Your task to perform on an android device: Open the stopwatch Image 0: 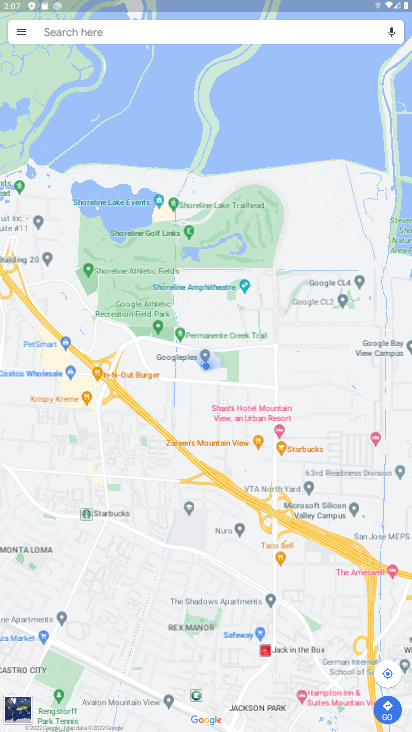
Step 0: press home button
Your task to perform on an android device: Open the stopwatch Image 1: 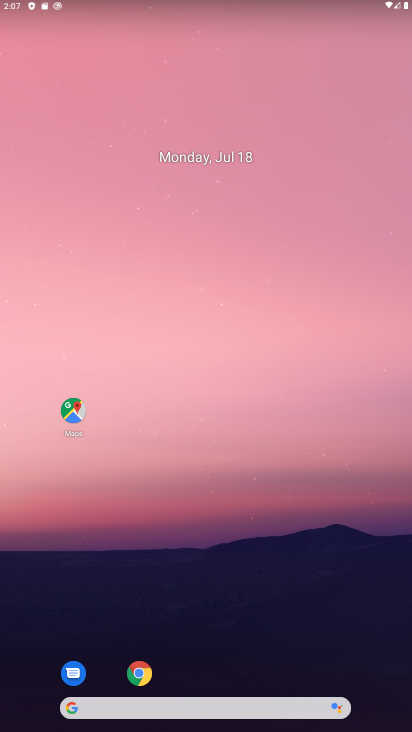
Step 1: drag from (222, 640) to (250, 40)
Your task to perform on an android device: Open the stopwatch Image 2: 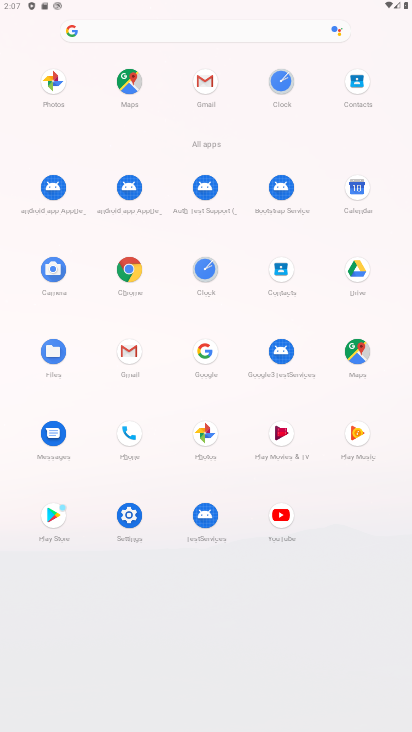
Step 2: click (207, 267)
Your task to perform on an android device: Open the stopwatch Image 3: 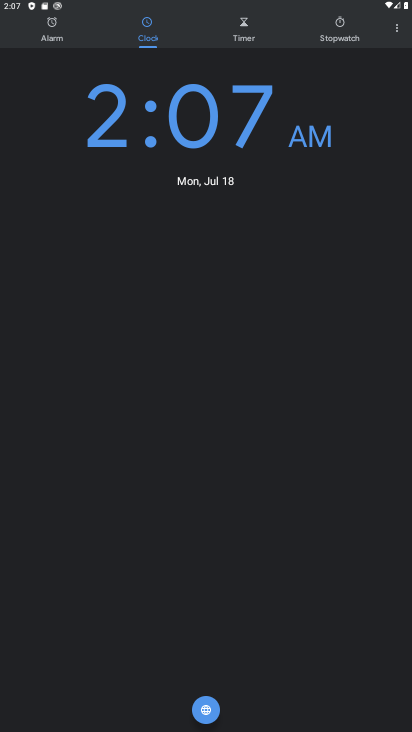
Step 3: click (333, 29)
Your task to perform on an android device: Open the stopwatch Image 4: 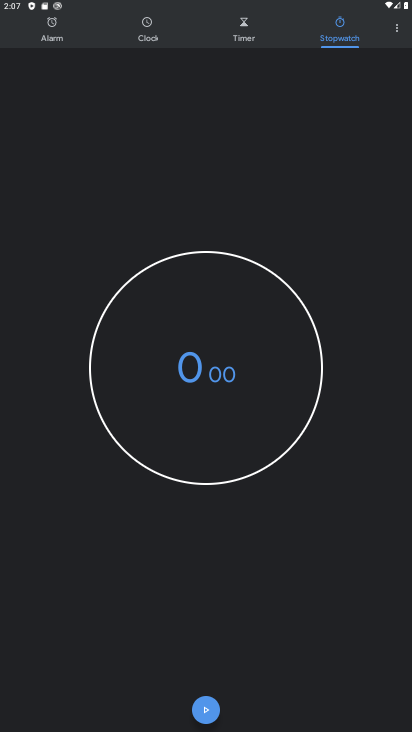
Step 4: task complete